Your task to perform on an android device: Open calendar and show me the second week of next month Image 0: 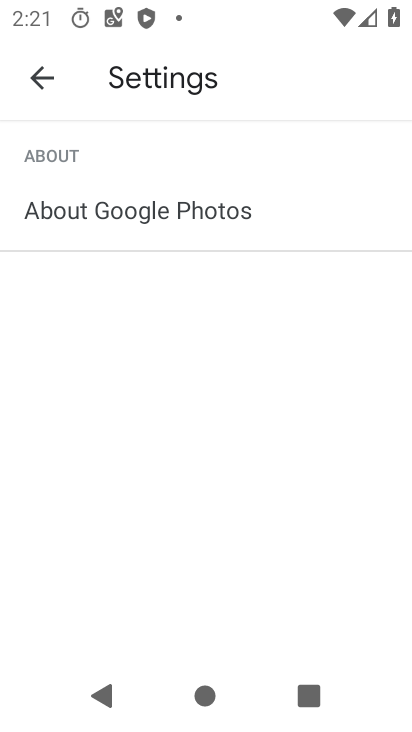
Step 0: press home button
Your task to perform on an android device: Open calendar and show me the second week of next month Image 1: 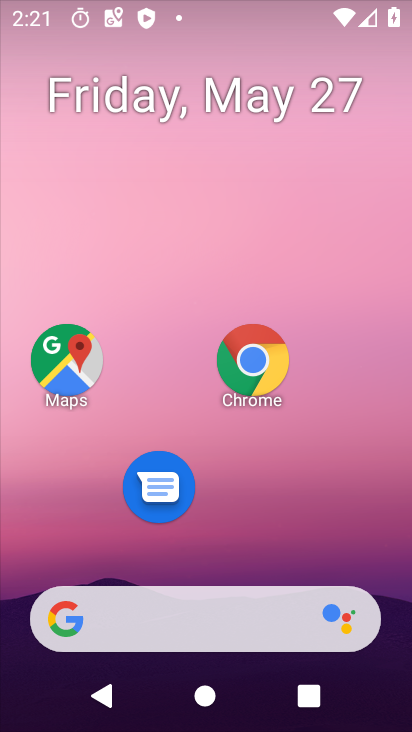
Step 1: drag from (263, 546) to (248, 87)
Your task to perform on an android device: Open calendar and show me the second week of next month Image 2: 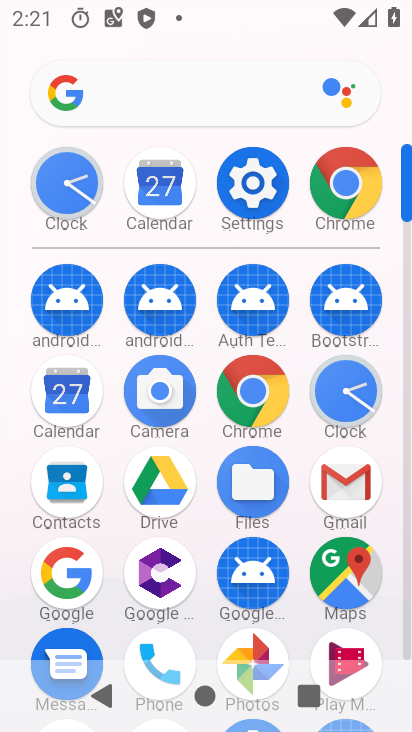
Step 2: click (69, 381)
Your task to perform on an android device: Open calendar and show me the second week of next month Image 3: 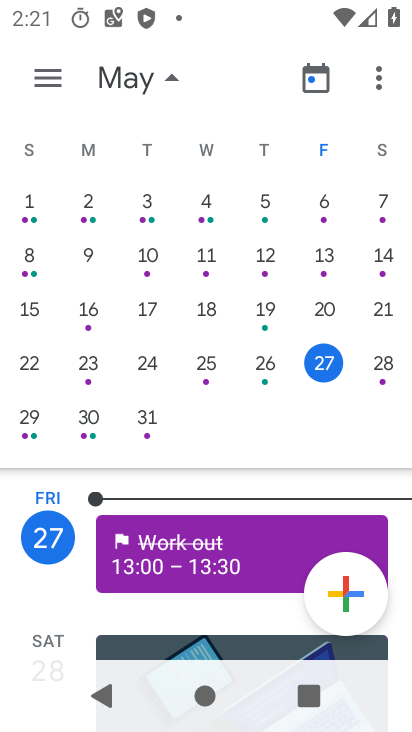
Step 3: drag from (369, 434) to (38, 411)
Your task to perform on an android device: Open calendar and show me the second week of next month Image 4: 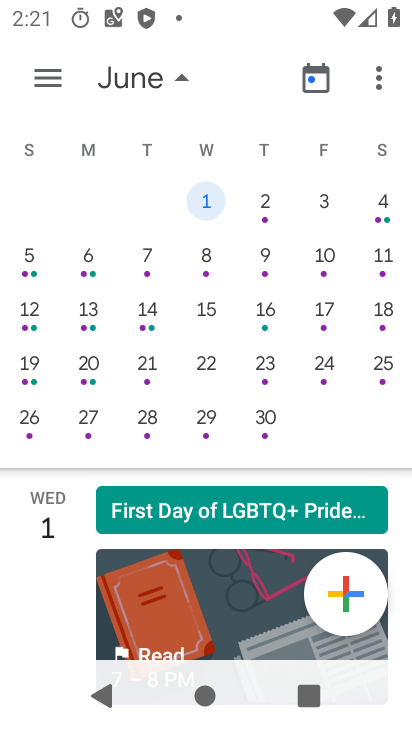
Step 4: click (262, 252)
Your task to perform on an android device: Open calendar and show me the second week of next month Image 5: 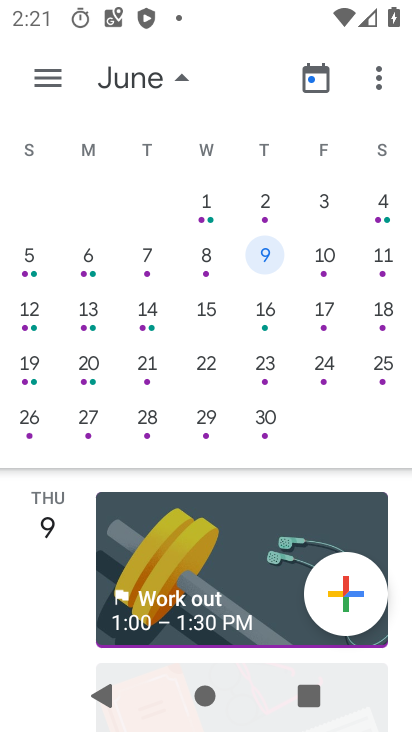
Step 5: task complete